Your task to perform on an android device: Go to sound settings Image 0: 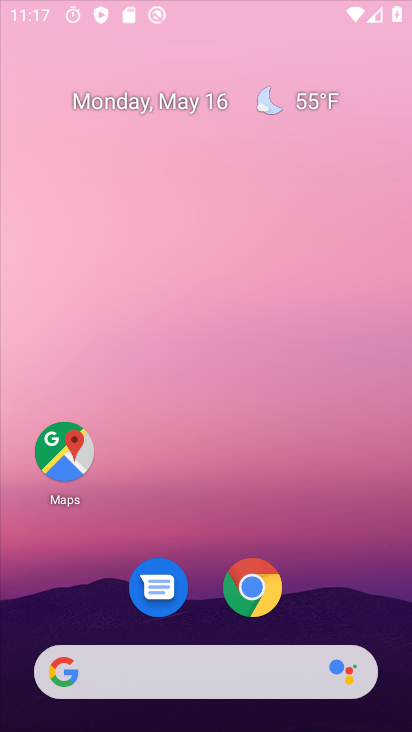
Step 0: click (304, 128)
Your task to perform on an android device: Go to sound settings Image 1: 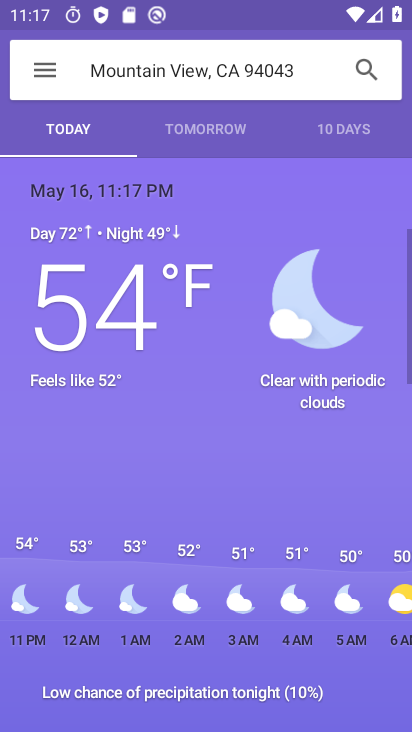
Step 1: press home button
Your task to perform on an android device: Go to sound settings Image 2: 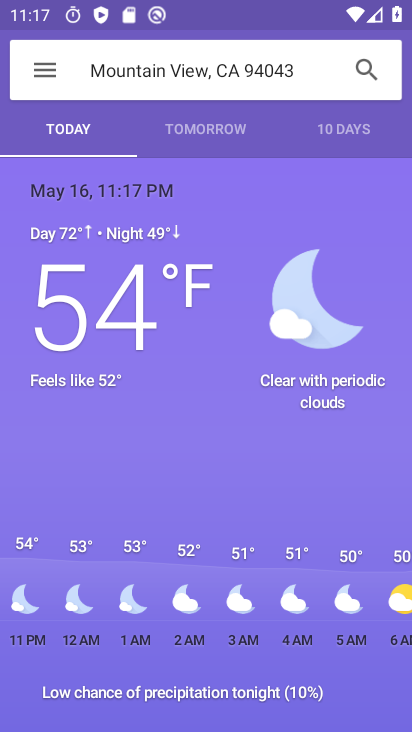
Step 2: press home button
Your task to perform on an android device: Go to sound settings Image 3: 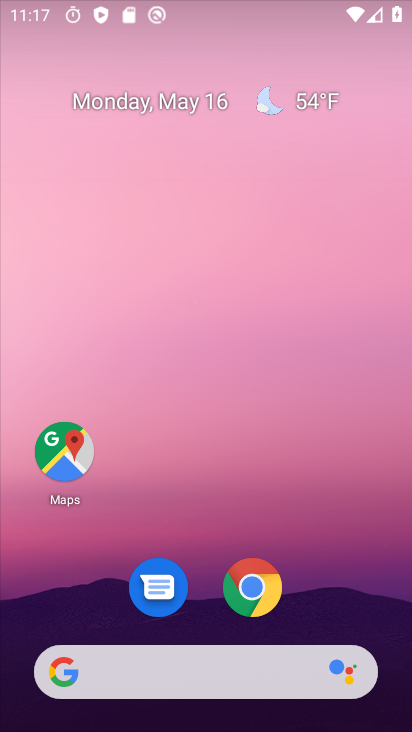
Step 3: drag from (189, 667) to (265, 96)
Your task to perform on an android device: Go to sound settings Image 4: 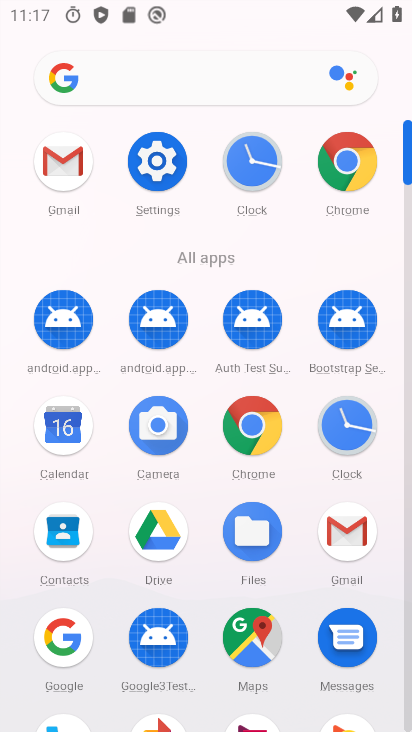
Step 4: click (162, 151)
Your task to perform on an android device: Go to sound settings Image 5: 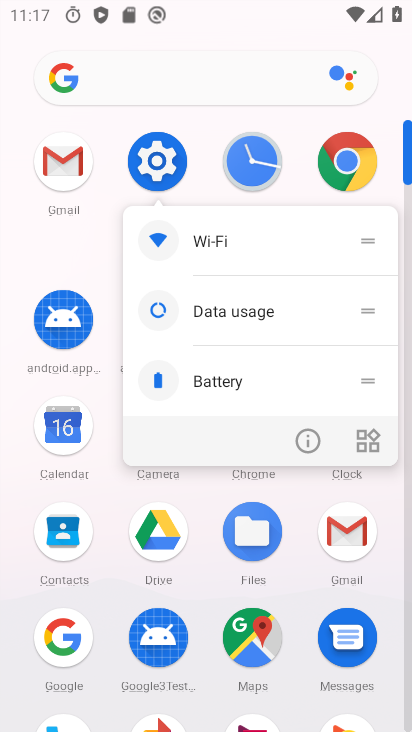
Step 5: click (306, 450)
Your task to perform on an android device: Go to sound settings Image 6: 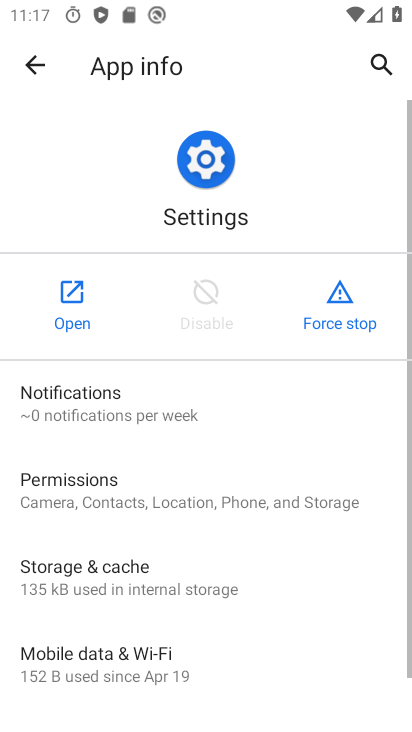
Step 6: click (77, 291)
Your task to perform on an android device: Go to sound settings Image 7: 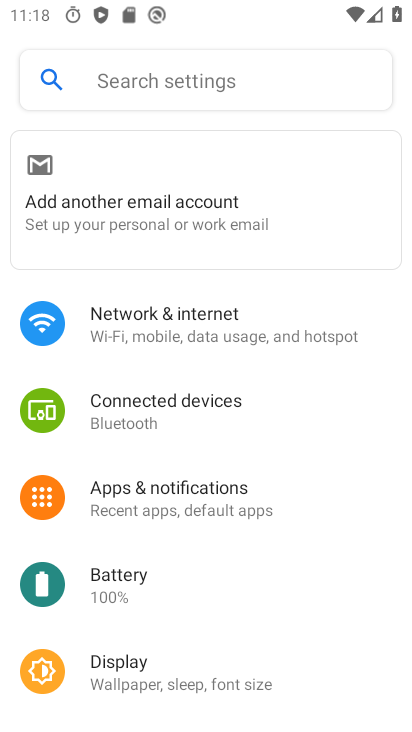
Step 7: drag from (271, 616) to (309, 162)
Your task to perform on an android device: Go to sound settings Image 8: 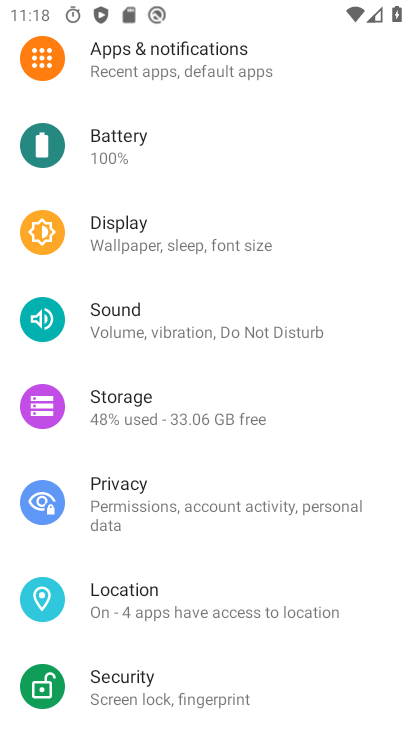
Step 8: click (151, 324)
Your task to perform on an android device: Go to sound settings Image 9: 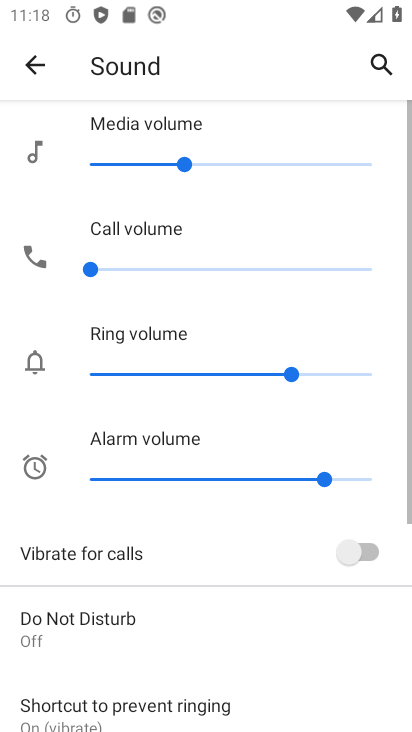
Step 9: task complete